Your task to perform on an android device: Open Android settings Image 0: 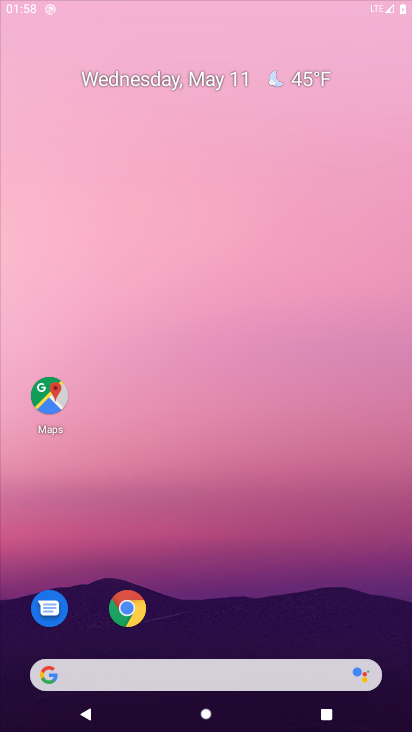
Step 0: press home button
Your task to perform on an android device: Open Android settings Image 1: 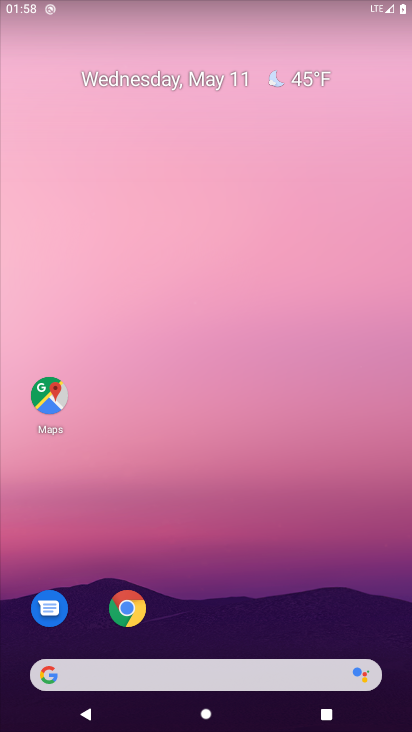
Step 1: drag from (232, 621) to (239, 44)
Your task to perform on an android device: Open Android settings Image 2: 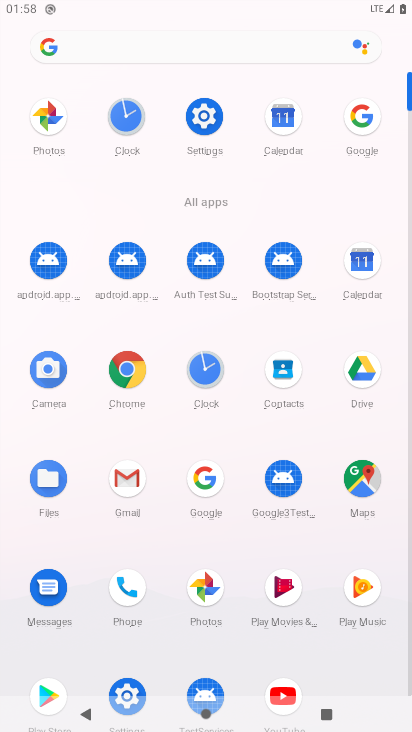
Step 2: click (135, 677)
Your task to perform on an android device: Open Android settings Image 3: 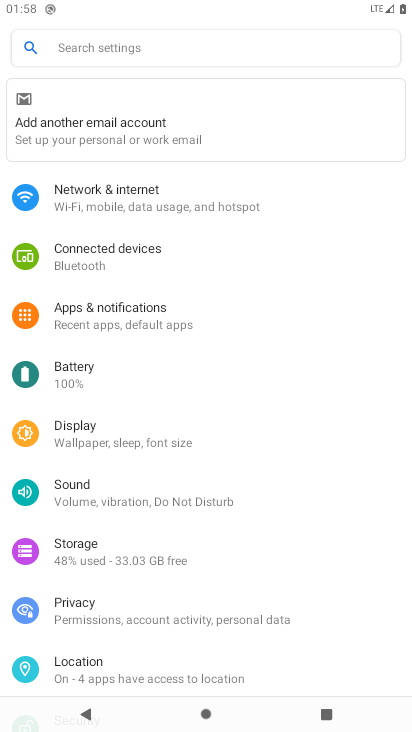
Step 3: drag from (164, 622) to (180, 145)
Your task to perform on an android device: Open Android settings Image 4: 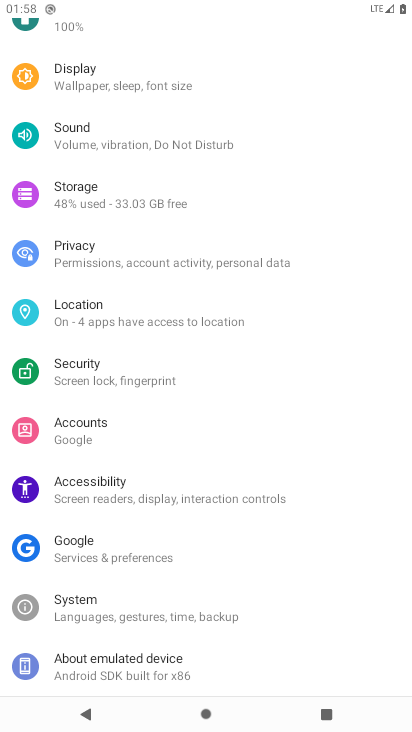
Step 4: click (158, 667)
Your task to perform on an android device: Open Android settings Image 5: 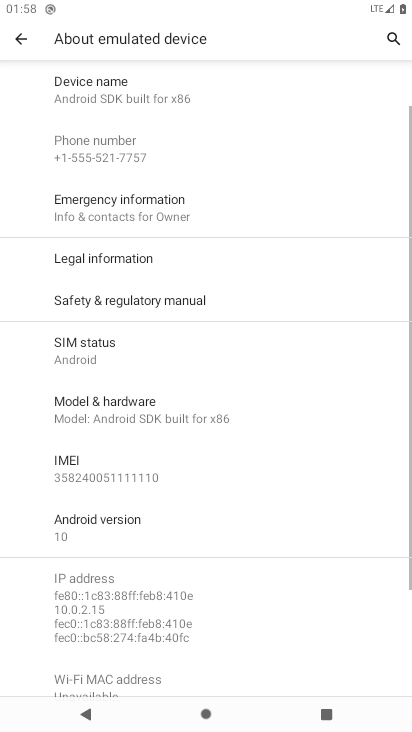
Step 5: click (160, 531)
Your task to perform on an android device: Open Android settings Image 6: 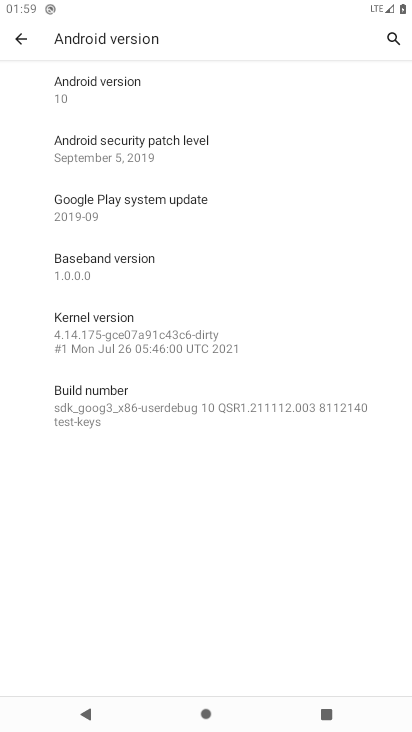
Step 6: task complete